Your task to perform on an android device: Search for logitech g pro on walmart, select the first entry, and add it to the cart. Image 0: 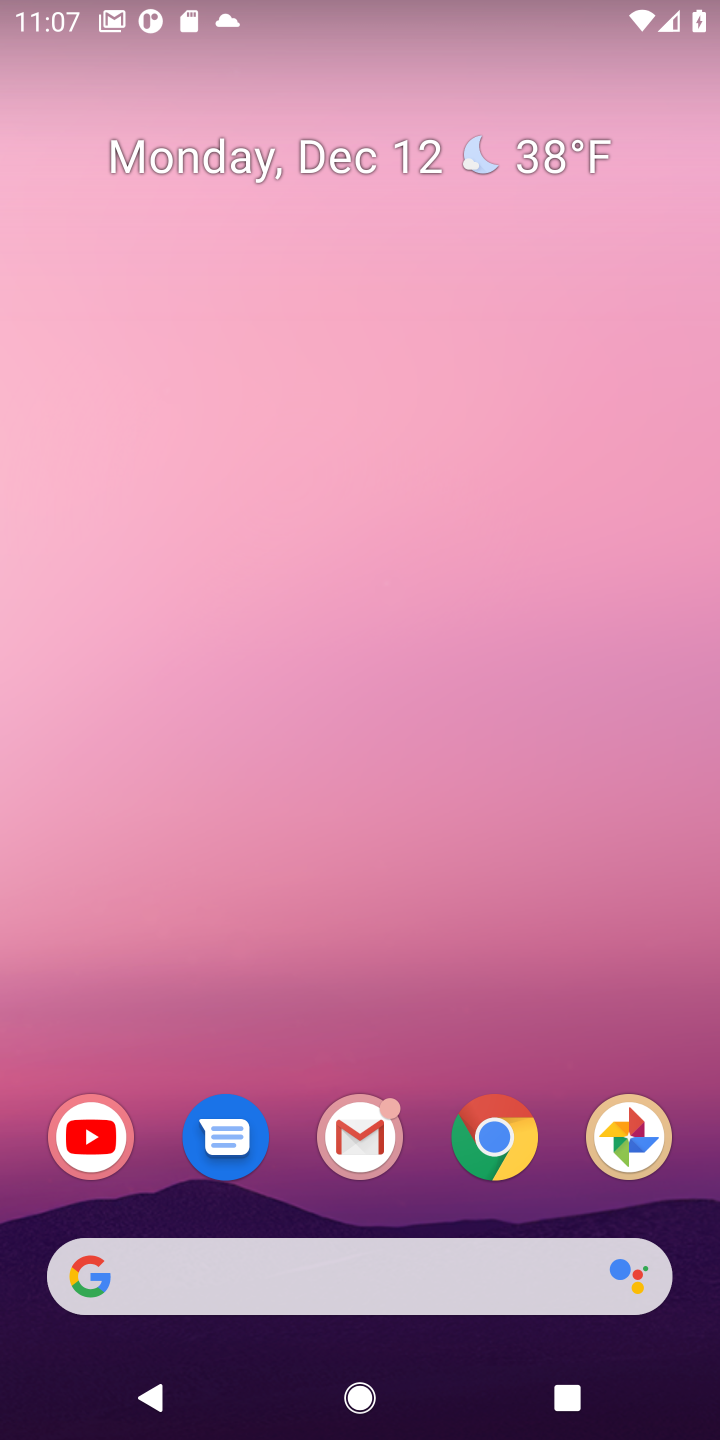
Step 0: click (347, 1256)
Your task to perform on an android device: Search for logitech g pro on walmart, select the first entry, and add it to the cart. Image 1: 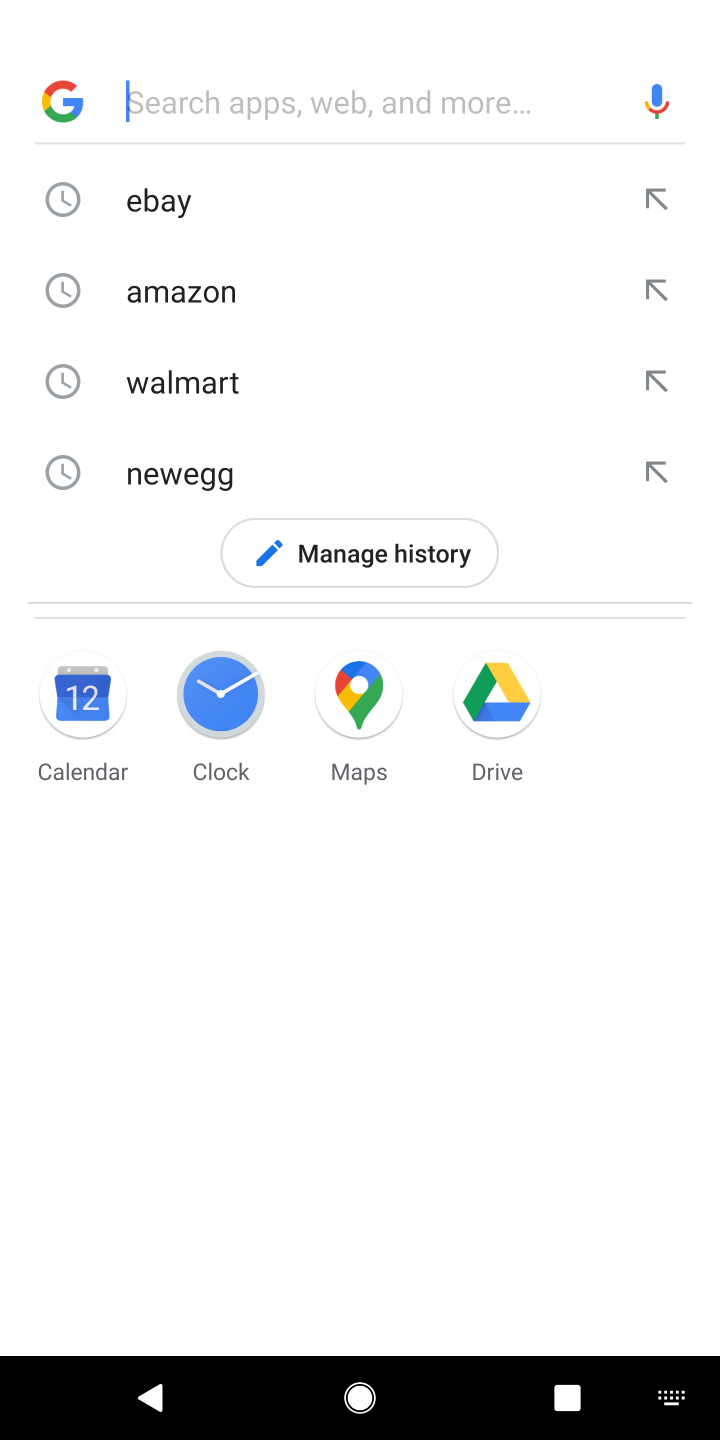
Step 1: click (194, 407)
Your task to perform on an android device: Search for logitech g pro on walmart, select the first entry, and add it to the cart. Image 2: 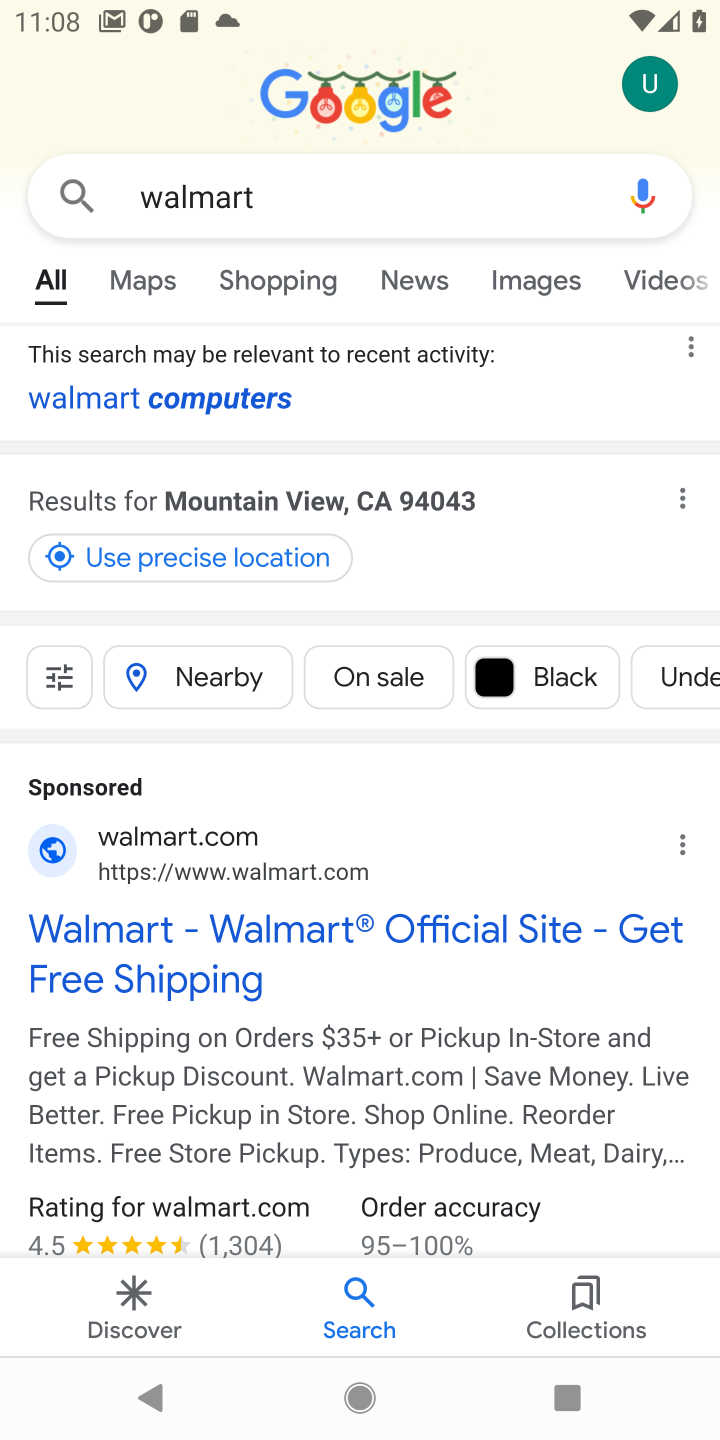
Step 2: click (143, 932)
Your task to perform on an android device: Search for logitech g pro on walmart, select the first entry, and add it to the cart. Image 3: 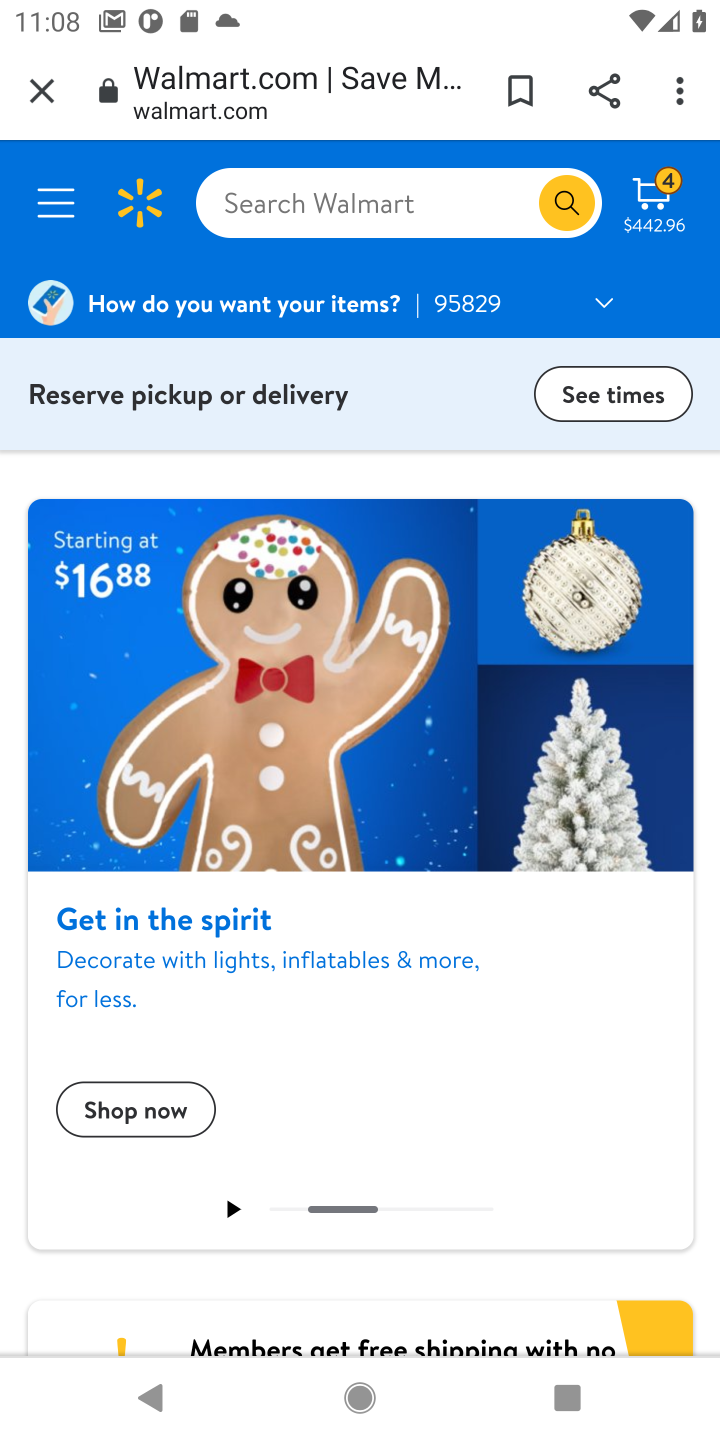
Step 3: click (366, 203)
Your task to perform on an android device: Search for logitech g pro on walmart, select the first entry, and add it to the cart. Image 4: 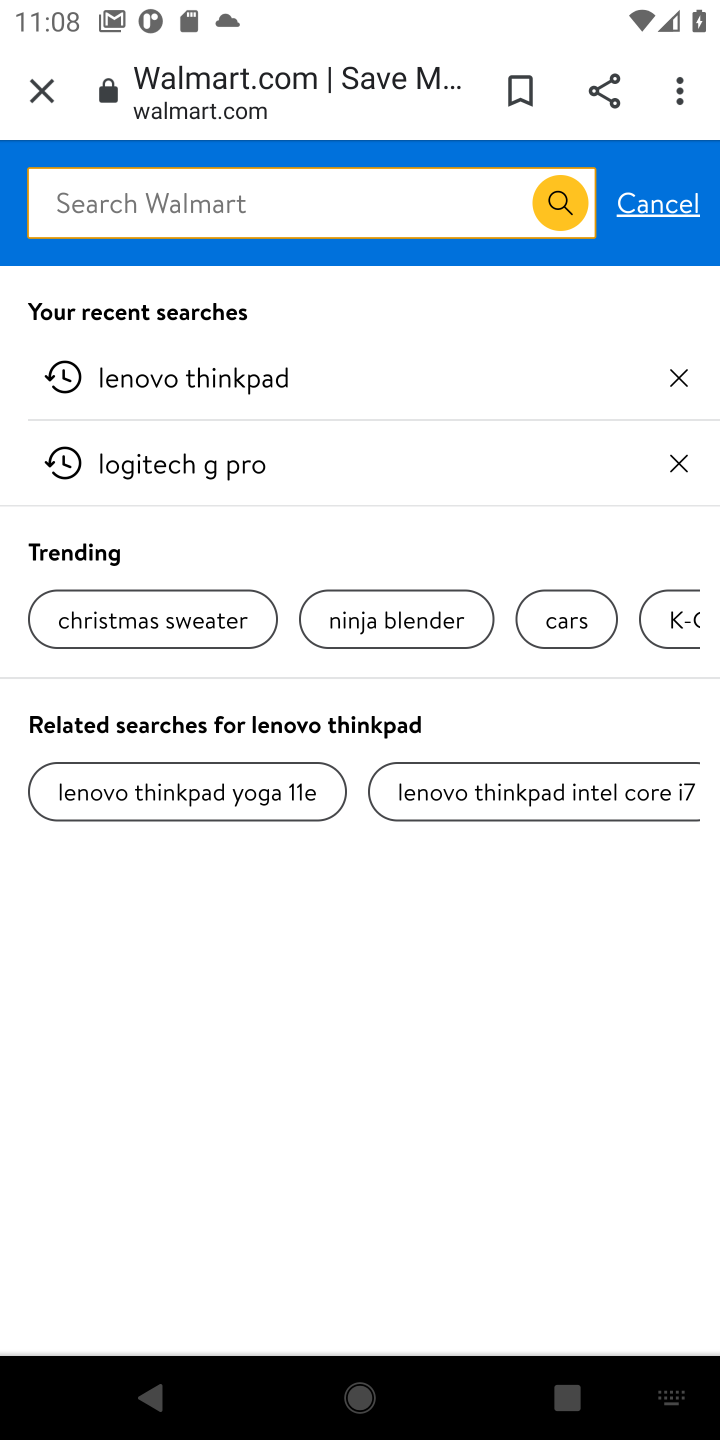
Step 4: type "logitech g pro"
Your task to perform on an android device: Search for logitech g pro on walmart, select the first entry, and add it to the cart. Image 5: 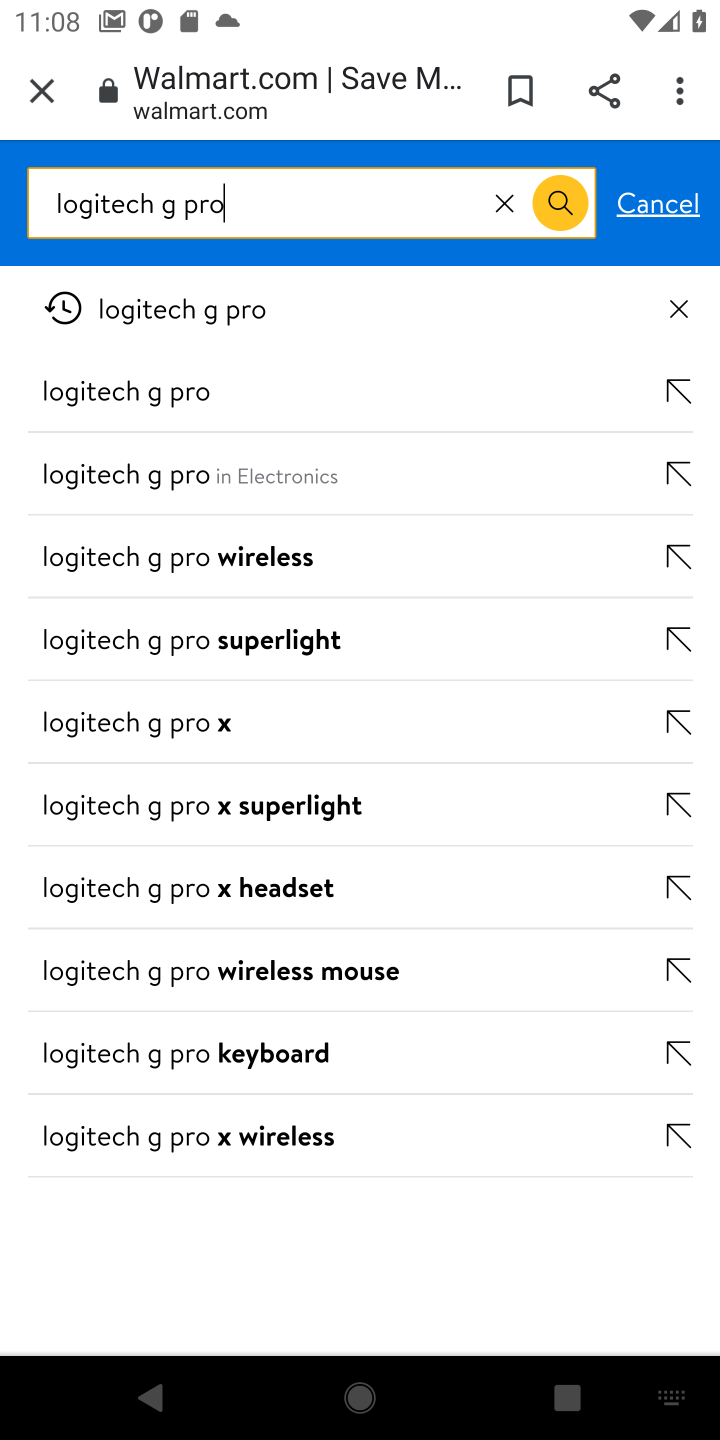
Step 5: click (200, 332)
Your task to perform on an android device: Search for logitech g pro on walmart, select the first entry, and add it to the cart. Image 6: 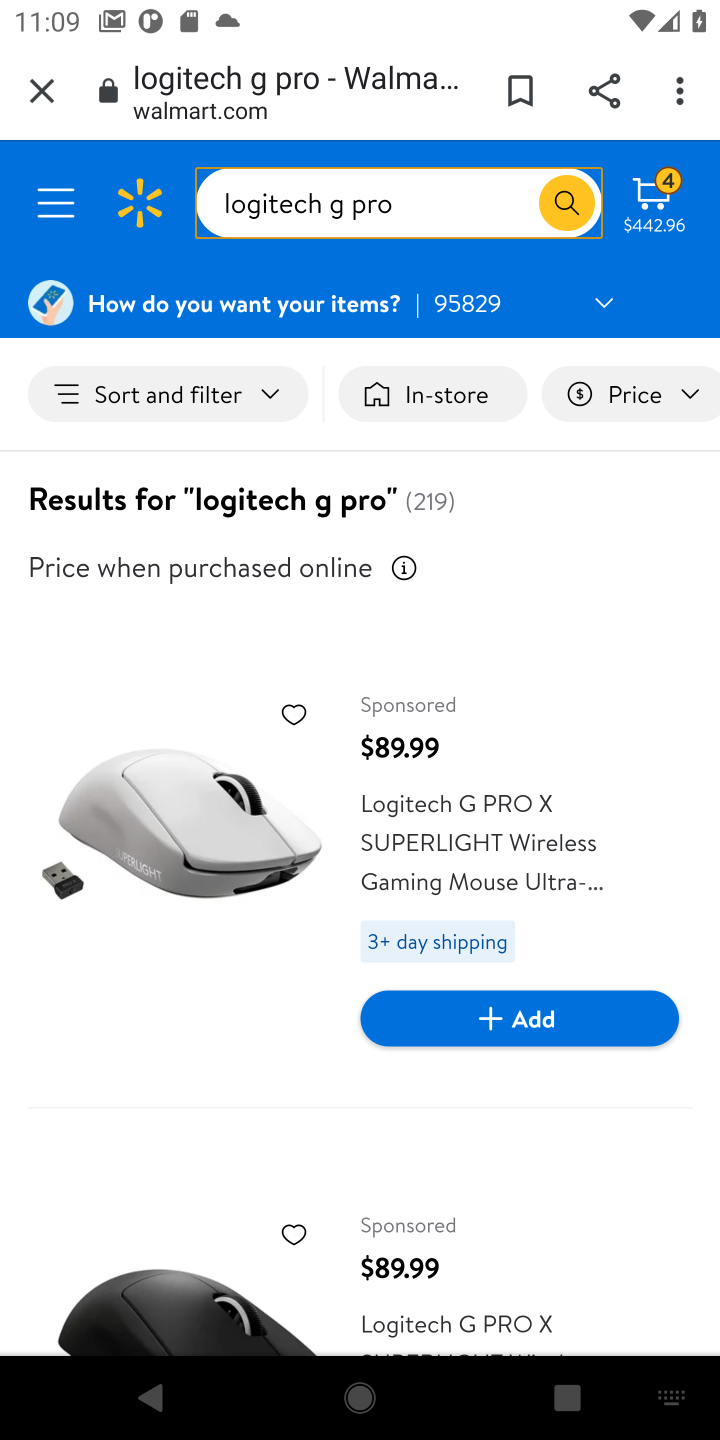
Step 6: click (465, 1005)
Your task to perform on an android device: Search for logitech g pro on walmart, select the first entry, and add it to the cart. Image 7: 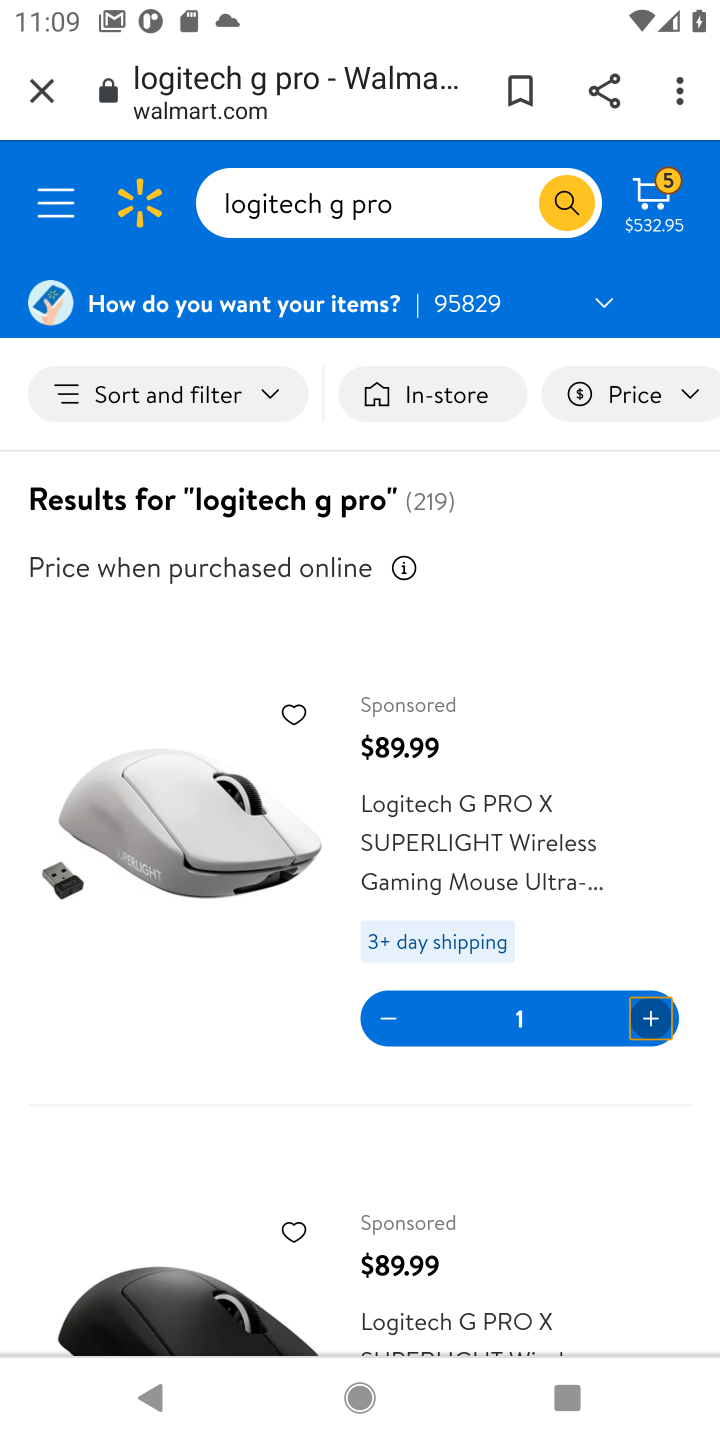
Step 7: task complete